Your task to perform on an android device: change the clock display to digital Image 0: 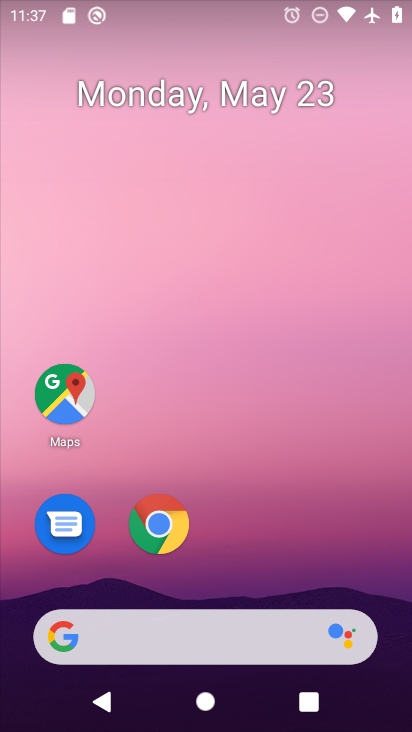
Step 0: drag from (234, 583) to (247, 200)
Your task to perform on an android device: change the clock display to digital Image 1: 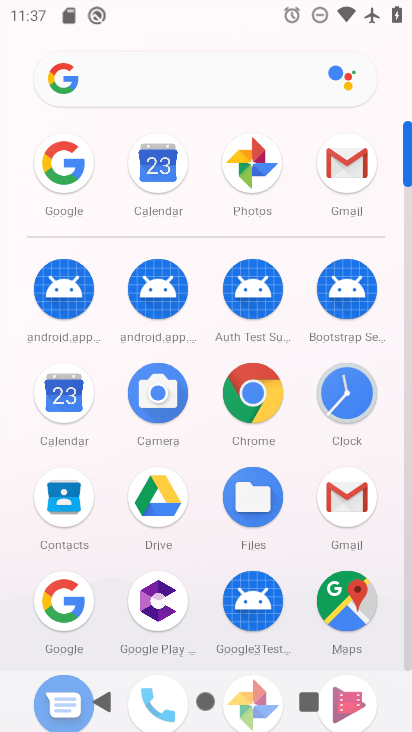
Step 1: click (324, 389)
Your task to perform on an android device: change the clock display to digital Image 2: 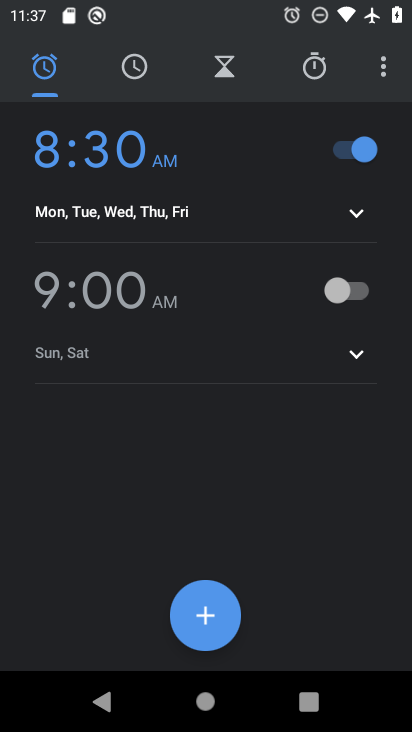
Step 2: click (382, 72)
Your task to perform on an android device: change the clock display to digital Image 3: 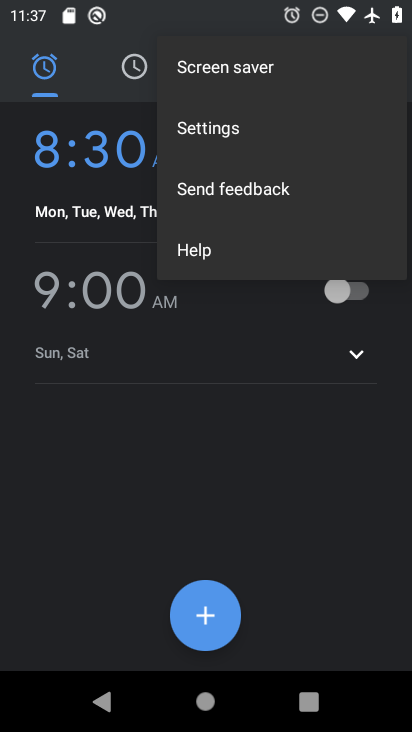
Step 3: click (276, 133)
Your task to perform on an android device: change the clock display to digital Image 4: 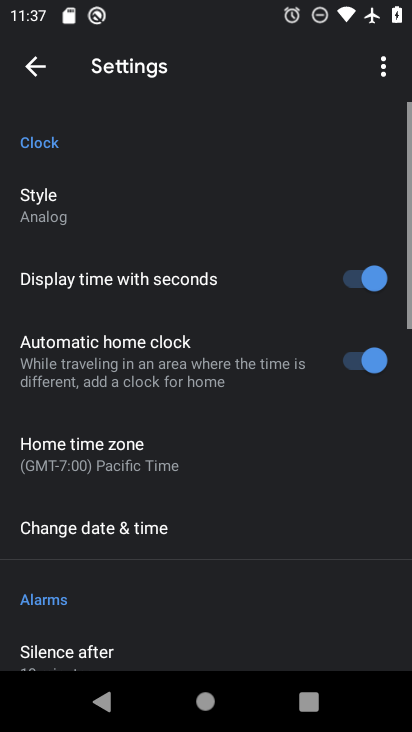
Step 4: click (155, 218)
Your task to perform on an android device: change the clock display to digital Image 5: 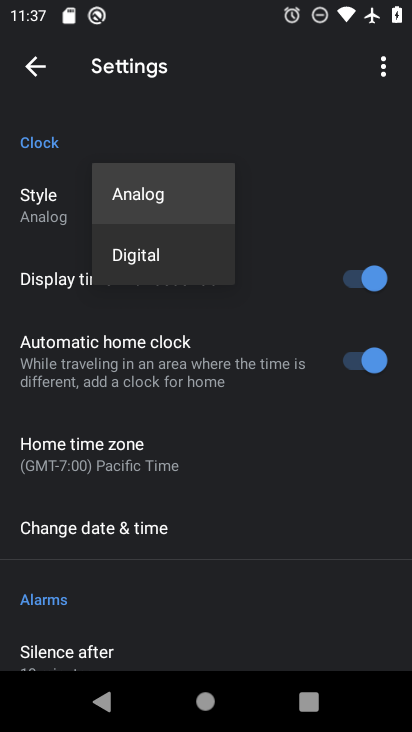
Step 5: click (158, 240)
Your task to perform on an android device: change the clock display to digital Image 6: 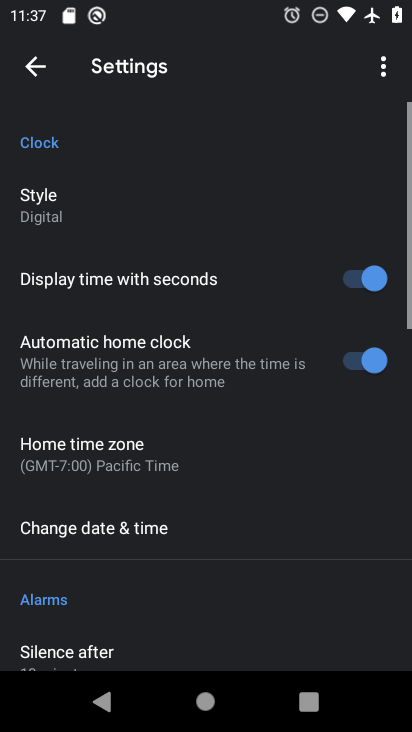
Step 6: task complete